Your task to perform on an android device: Clear the cart on ebay.com. Image 0: 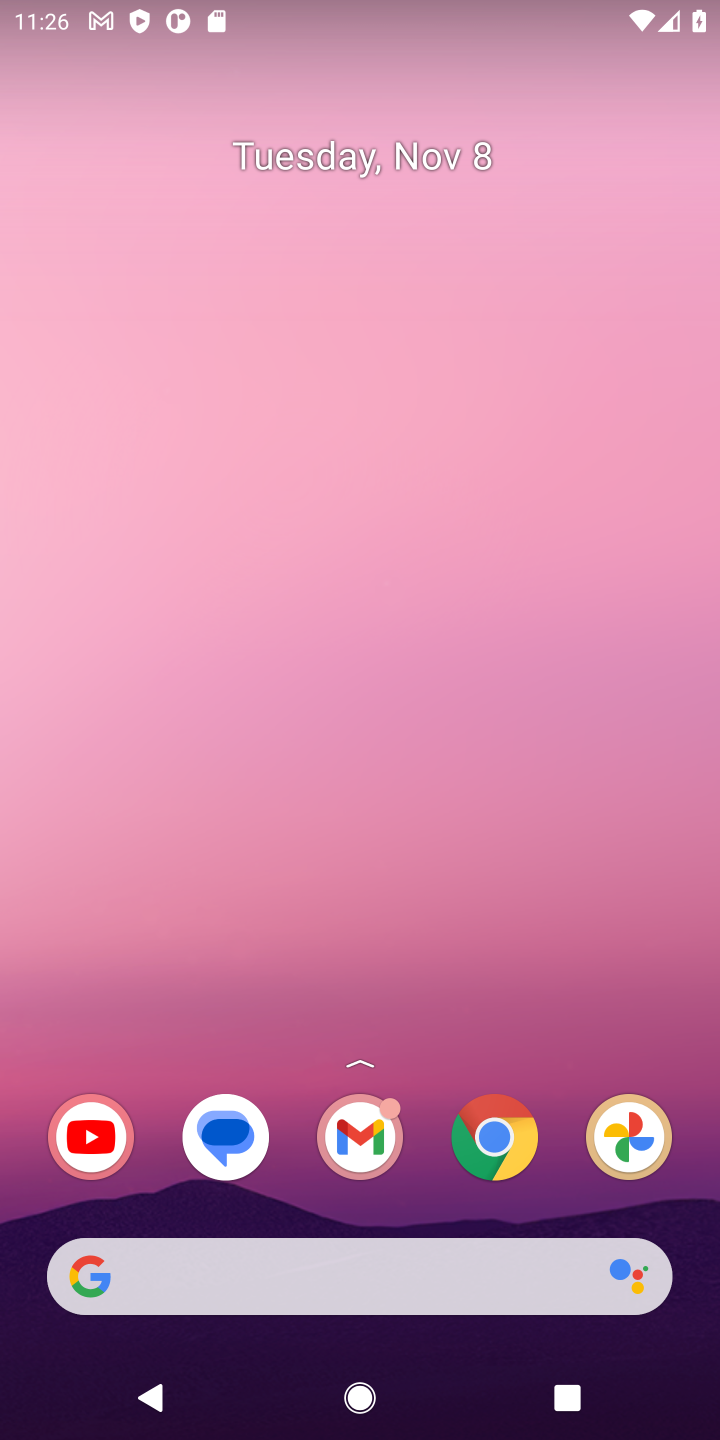
Step 0: click (495, 1138)
Your task to perform on an android device: Clear the cart on ebay.com. Image 1: 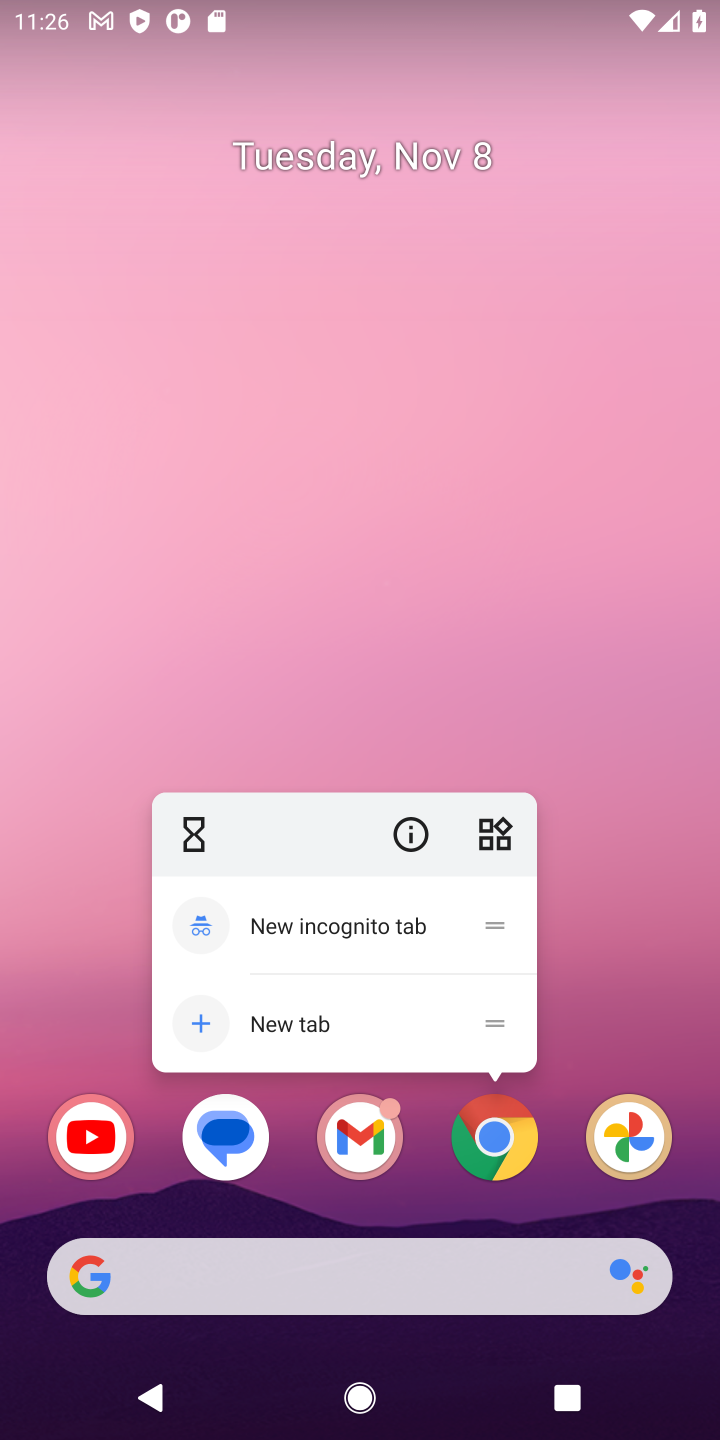
Step 1: click (495, 1138)
Your task to perform on an android device: Clear the cart on ebay.com. Image 2: 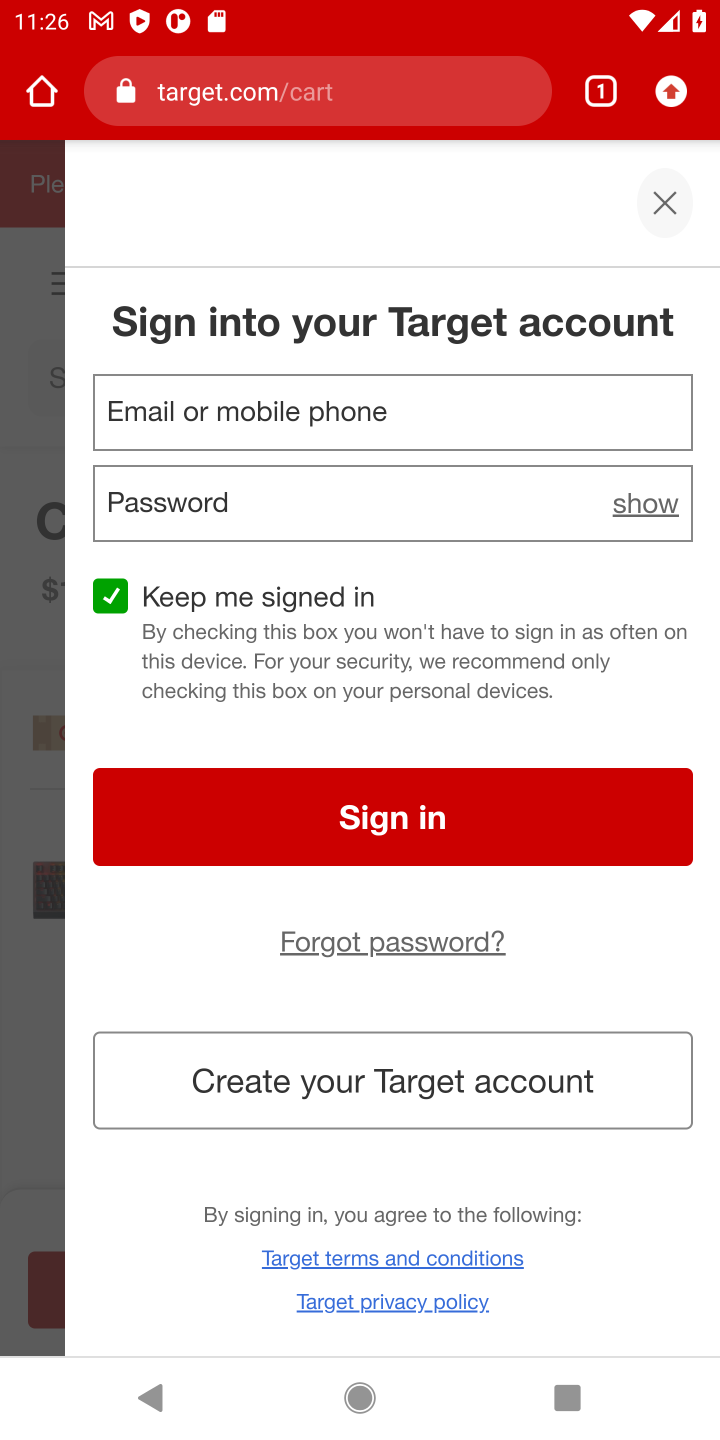
Step 2: click (401, 108)
Your task to perform on an android device: Clear the cart on ebay.com. Image 3: 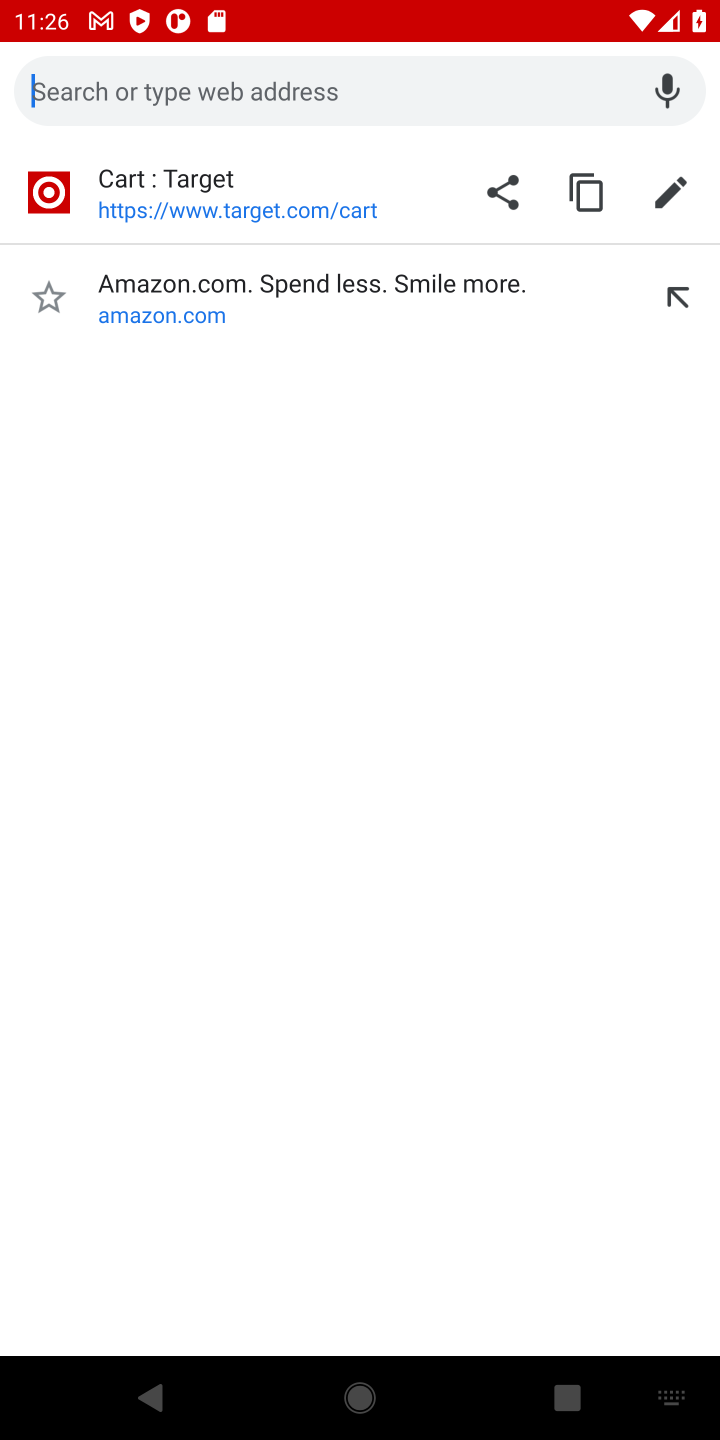
Step 3: type "ebay.com"
Your task to perform on an android device: Clear the cart on ebay.com. Image 4: 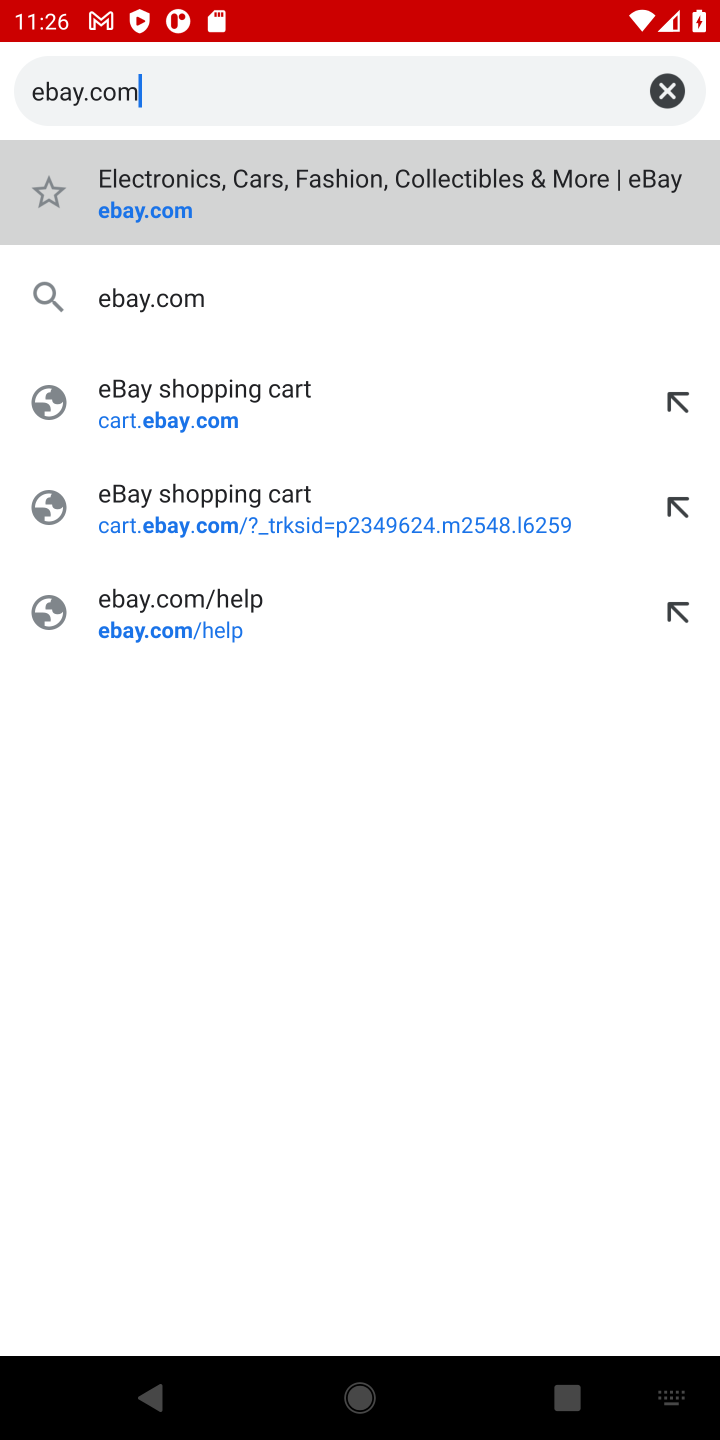
Step 4: click (151, 302)
Your task to perform on an android device: Clear the cart on ebay.com. Image 5: 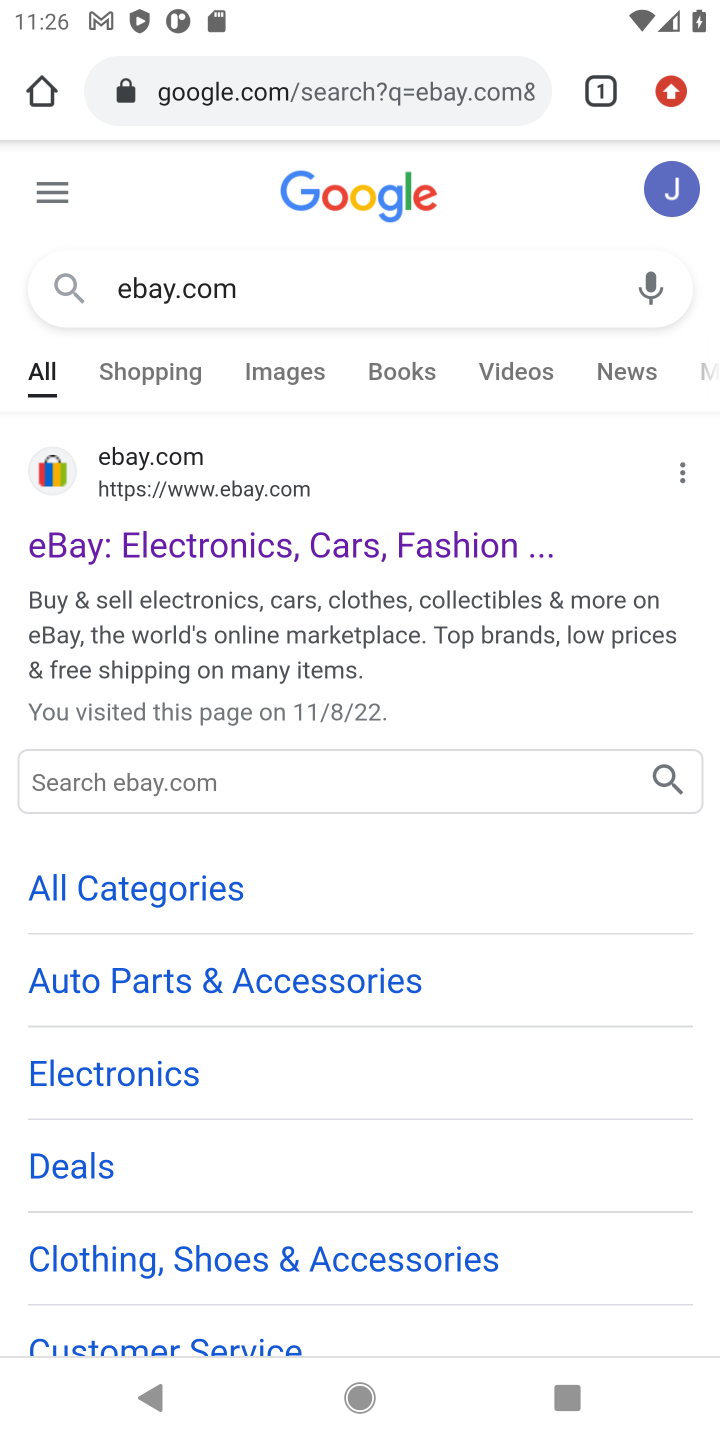
Step 5: click (179, 540)
Your task to perform on an android device: Clear the cart on ebay.com. Image 6: 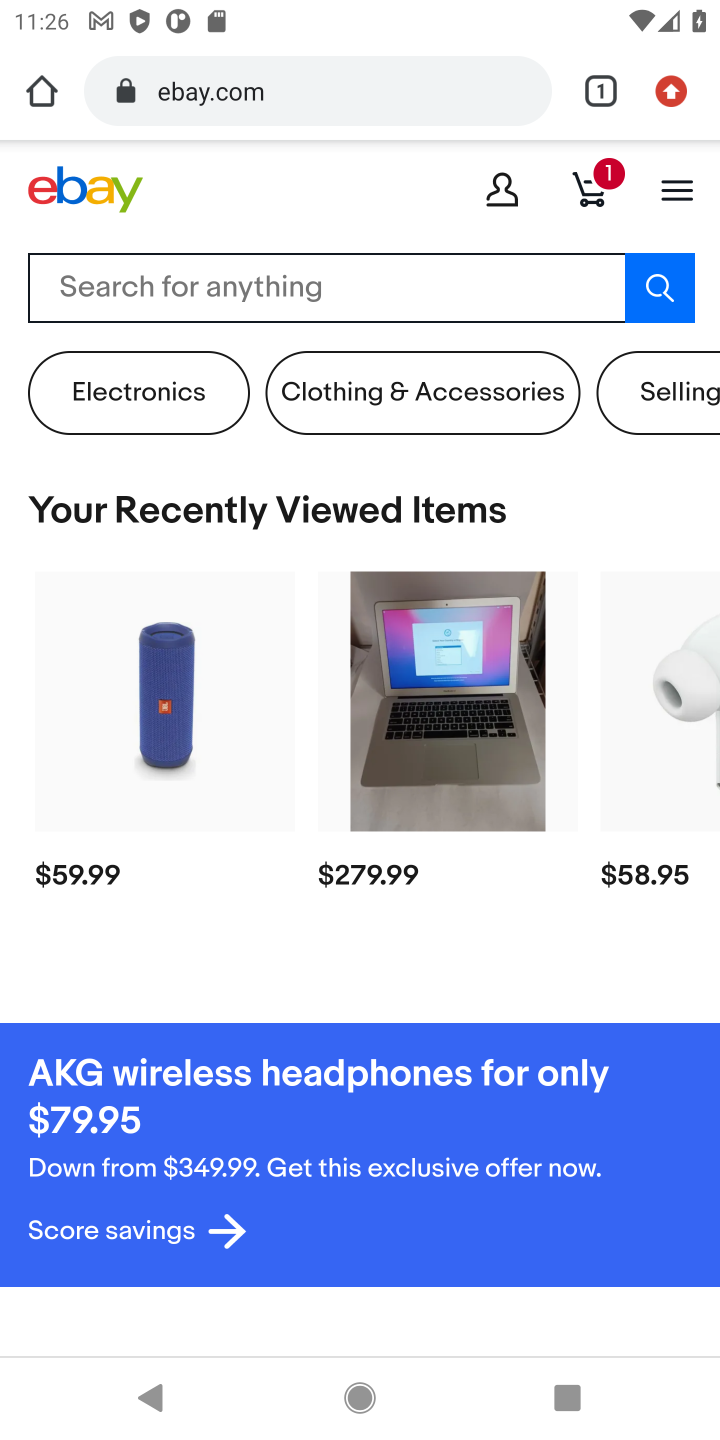
Step 6: click (591, 189)
Your task to perform on an android device: Clear the cart on ebay.com. Image 7: 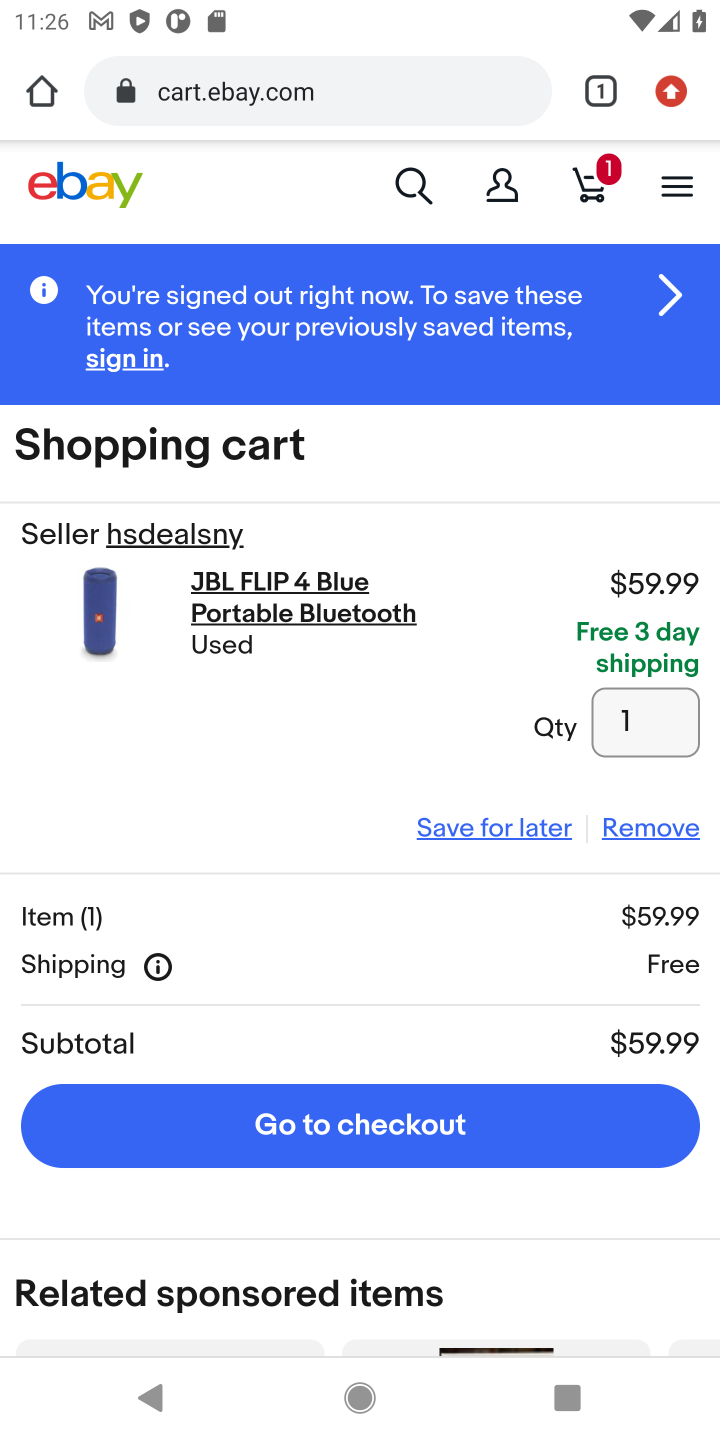
Step 7: click (644, 827)
Your task to perform on an android device: Clear the cart on ebay.com. Image 8: 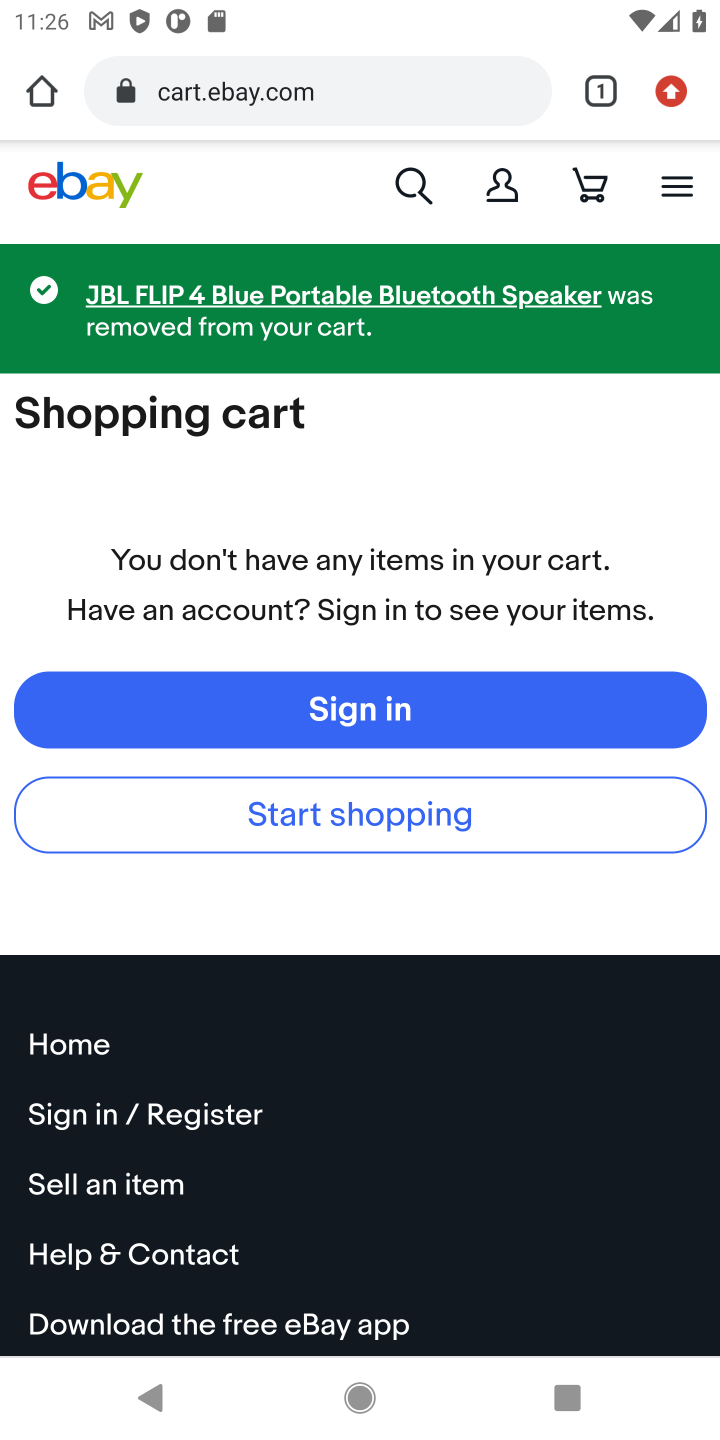
Step 8: task complete